Your task to perform on an android device: open chrome privacy settings Image 0: 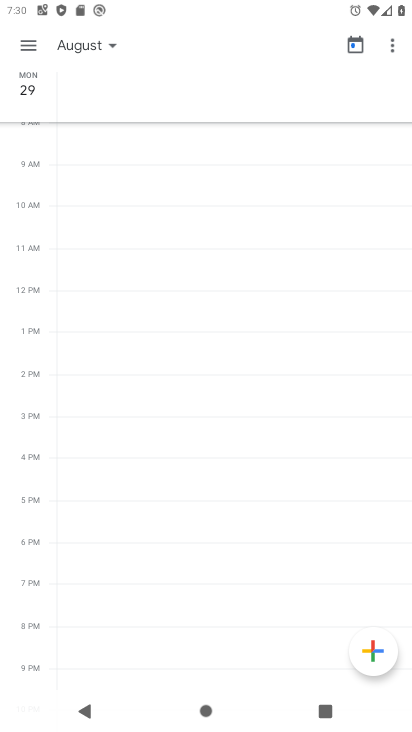
Step 0: press home button
Your task to perform on an android device: open chrome privacy settings Image 1: 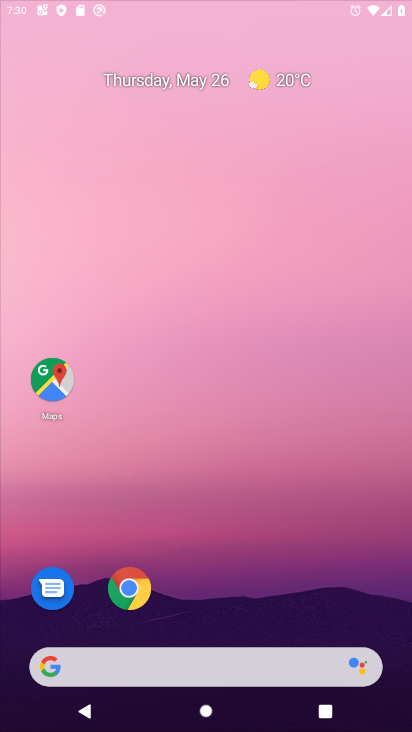
Step 1: drag from (347, 605) to (256, 19)
Your task to perform on an android device: open chrome privacy settings Image 2: 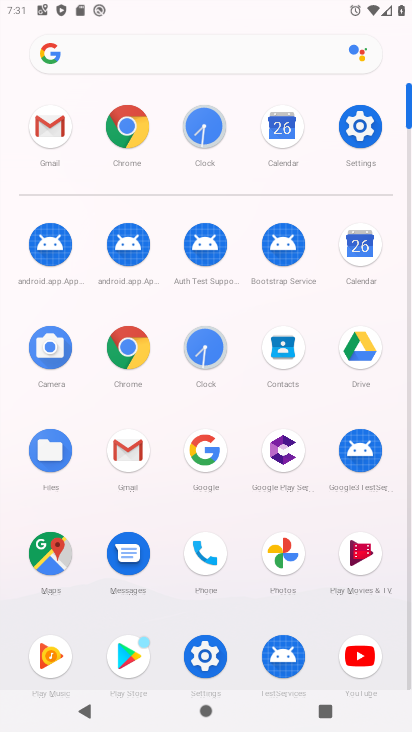
Step 2: click (124, 331)
Your task to perform on an android device: open chrome privacy settings Image 3: 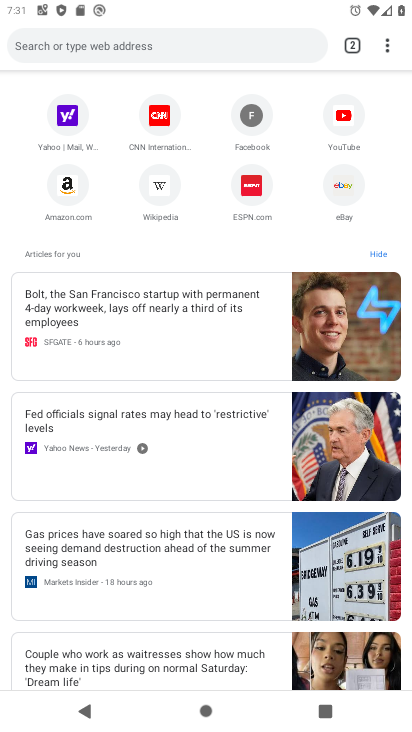
Step 3: click (391, 51)
Your task to perform on an android device: open chrome privacy settings Image 4: 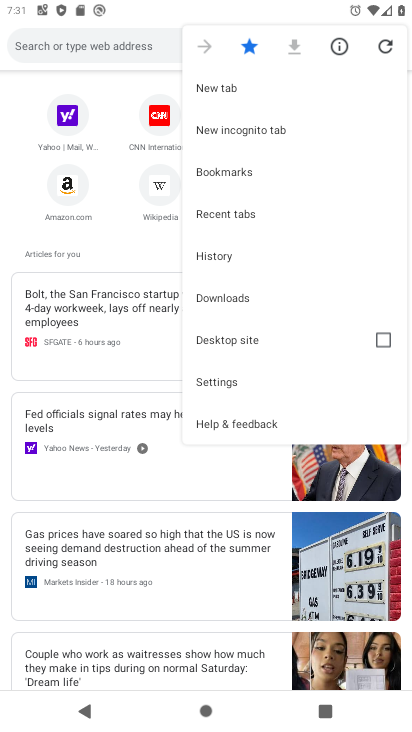
Step 4: click (261, 390)
Your task to perform on an android device: open chrome privacy settings Image 5: 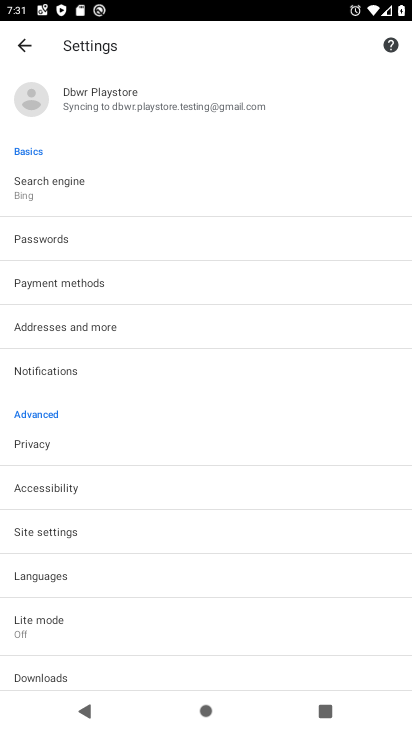
Step 5: drag from (76, 605) to (120, 327)
Your task to perform on an android device: open chrome privacy settings Image 6: 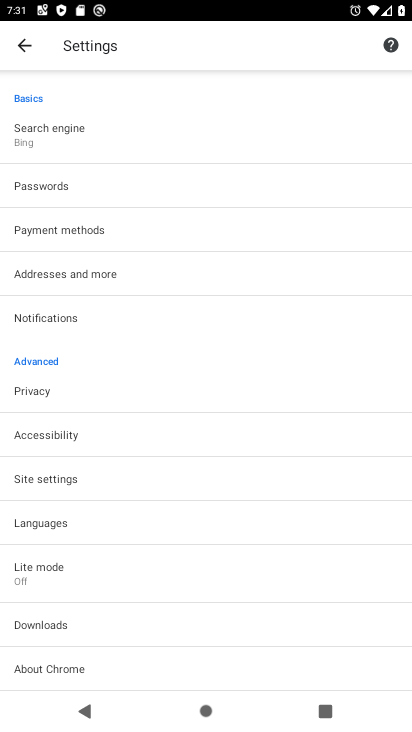
Step 6: click (39, 407)
Your task to perform on an android device: open chrome privacy settings Image 7: 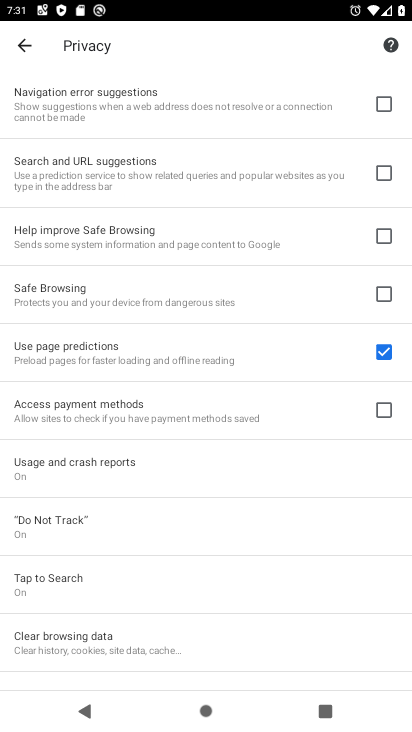
Step 7: task complete